Your task to perform on an android device: Open settings on Google Maps Image 0: 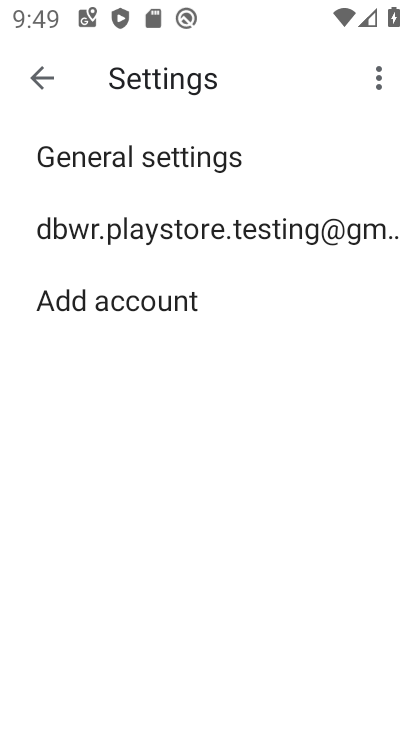
Step 0: press home button
Your task to perform on an android device: Open settings on Google Maps Image 1: 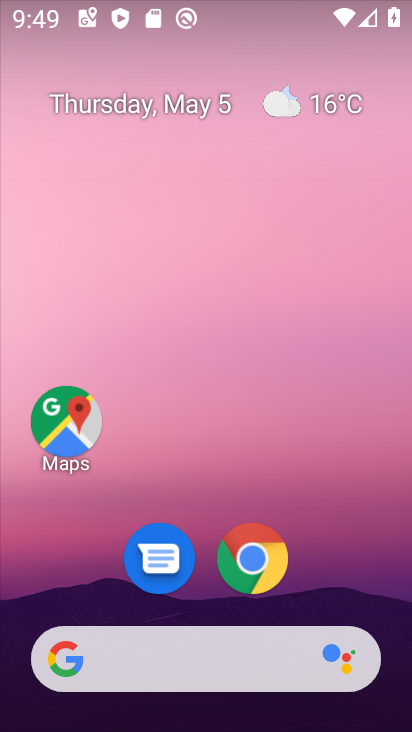
Step 1: drag from (370, 587) to (330, 187)
Your task to perform on an android device: Open settings on Google Maps Image 2: 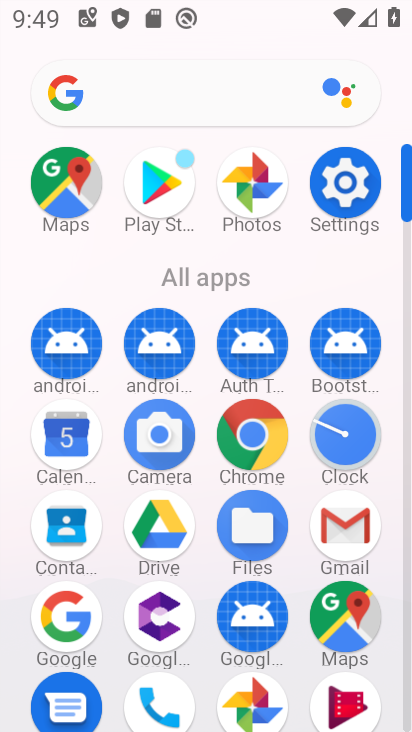
Step 2: click (69, 188)
Your task to perform on an android device: Open settings on Google Maps Image 3: 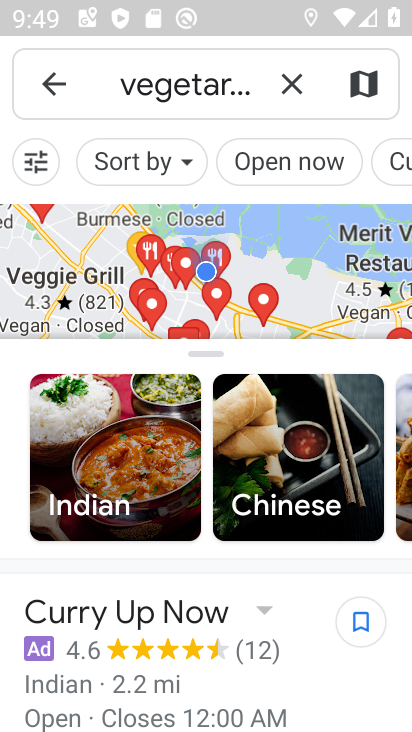
Step 3: click (56, 92)
Your task to perform on an android device: Open settings on Google Maps Image 4: 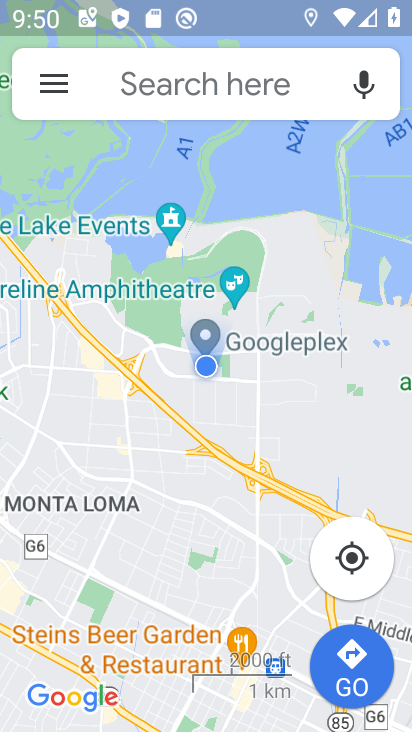
Step 4: click (56, 92)
Your task to perform on an android device: Open settings on Google Maps Image 5: 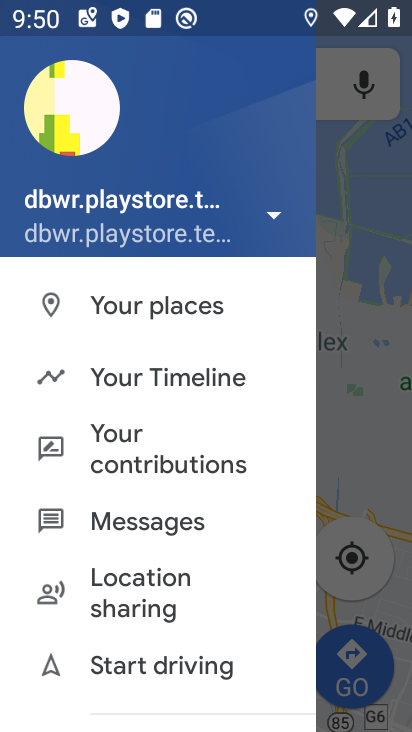
Step 5: click (224, 378)
Your task to perform on an android device: Open settings on Google Maps Image 6: 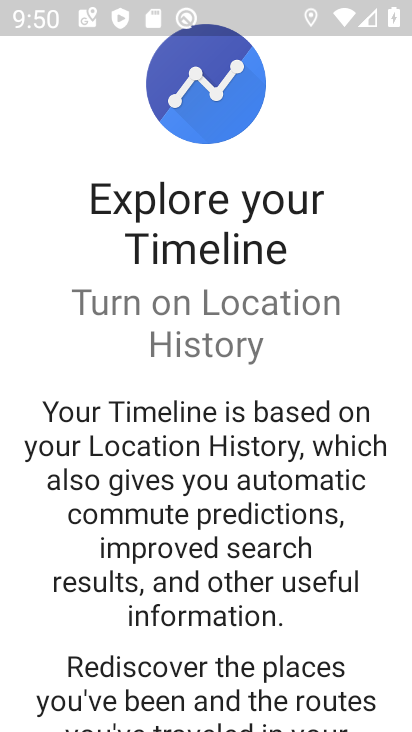
Step 6: drag from (285, 652) to (281, 236)
Your task to perform on an android device: Open settings on Google Maps Image 7: 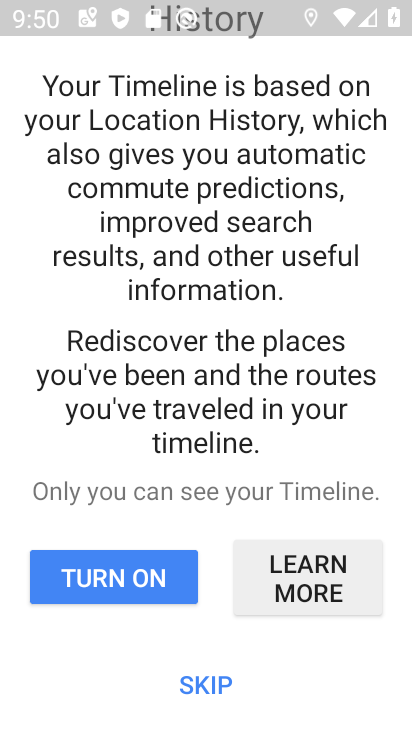
Step 7: click (218, 672)
Your task to perform on an android device: Open settings on Google Maps Image 8: 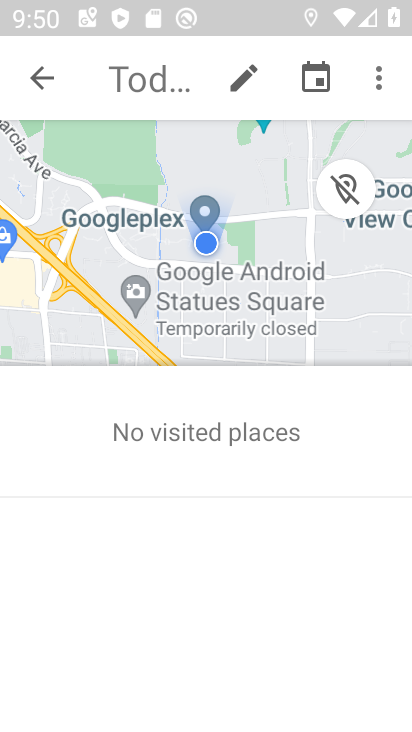
Step 8: click (371, 90)
Your task to perform on an android device: Open settings on Google Maps Image 9: 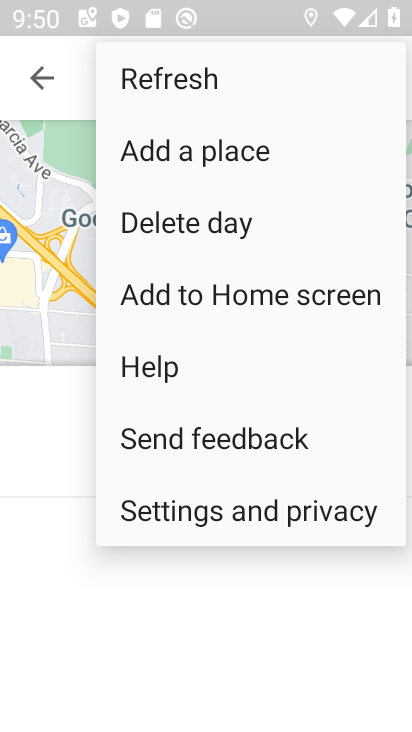
Step 9: click (357, 503)
Your task to perform on an android device: Open settings on Google Maps Image 10: 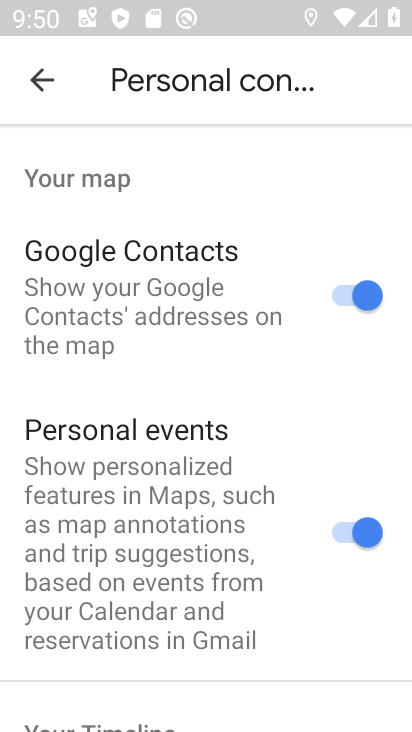
Step 10: task complete